Your task to perform on an android device: Go to Google Image 0: 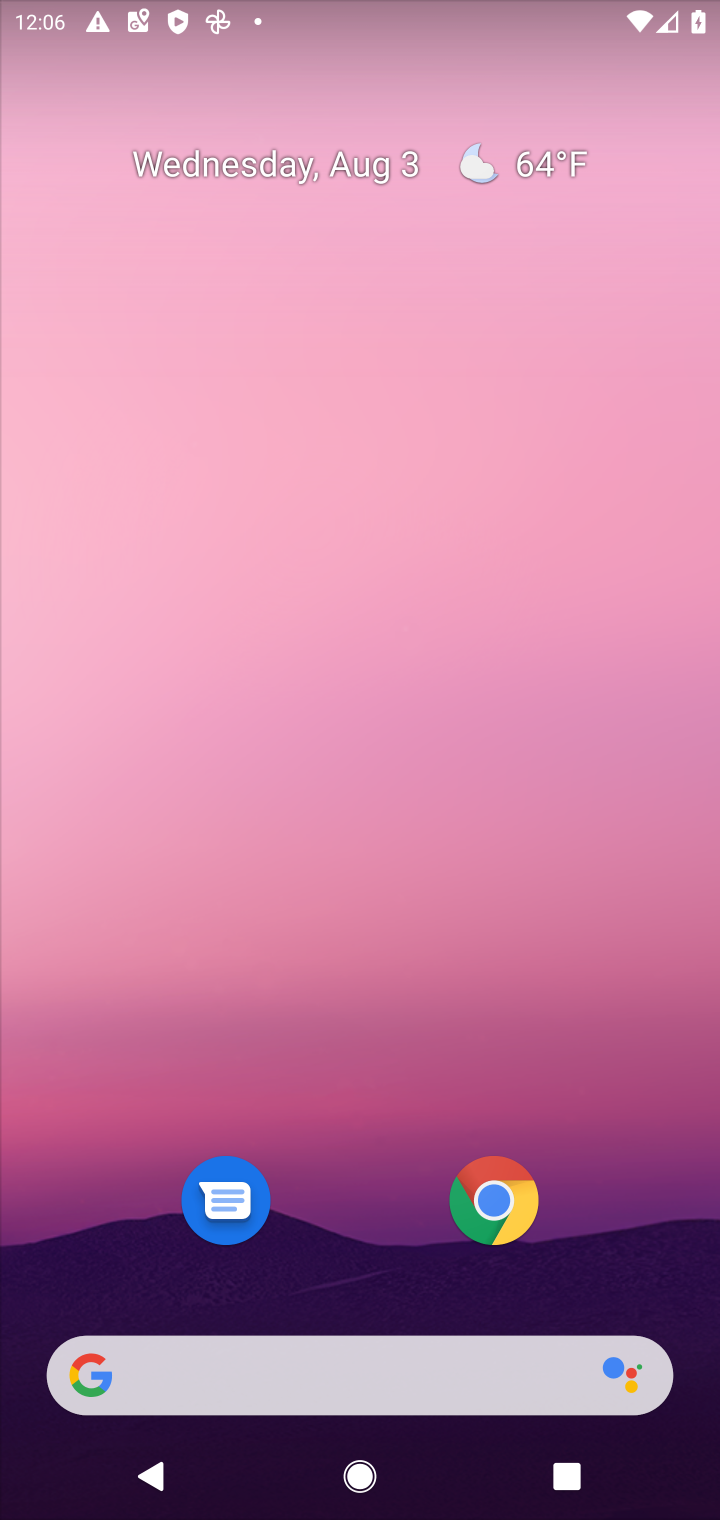
Step 0: click (495, 1206)
Your task to perform on an android device: Go to Google Image 1: 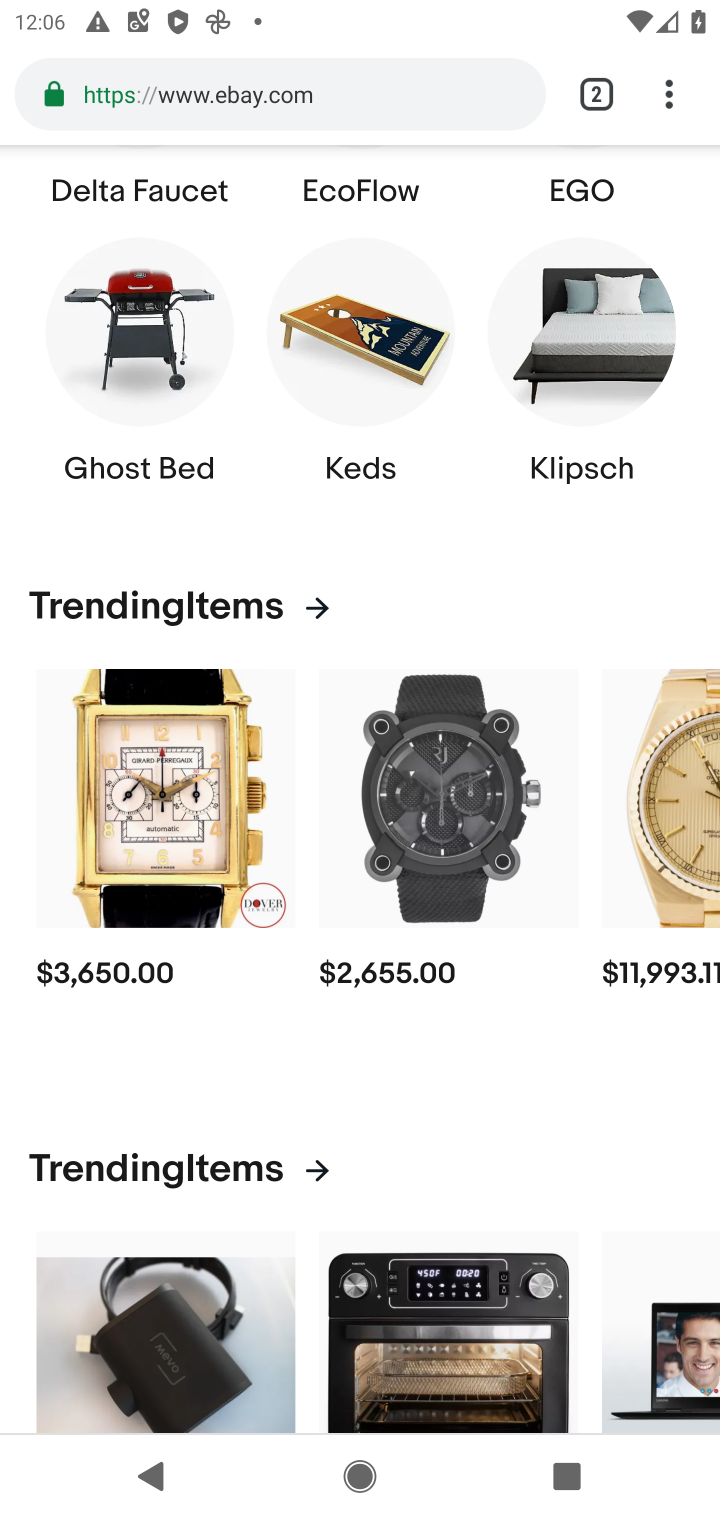
Step 1: task complete